Your task to perform on an android device: Go to Wikipedia Image 0: 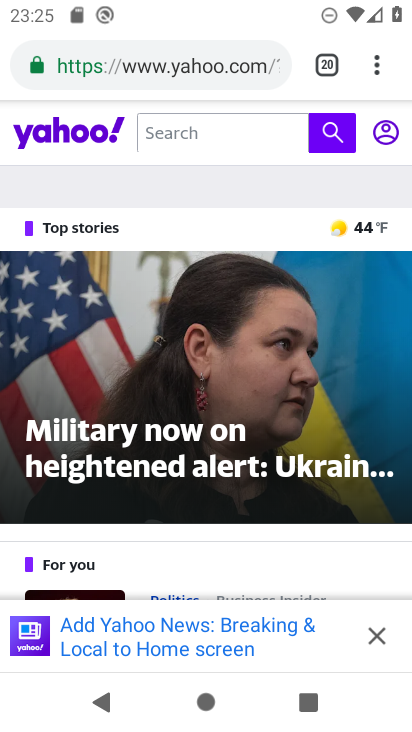
Step 0: press home button
Your task to perform on an android device: Go to Wikipedia Image 1: 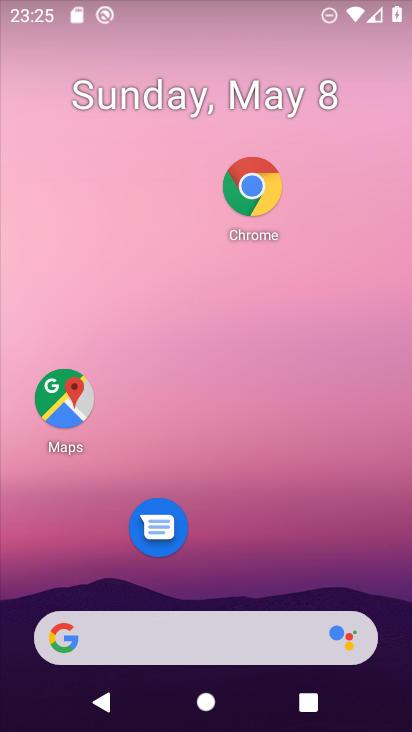
Step 1: click (268, 280)
Your task to perform on an android device: Go to Wikipedia Image 2: 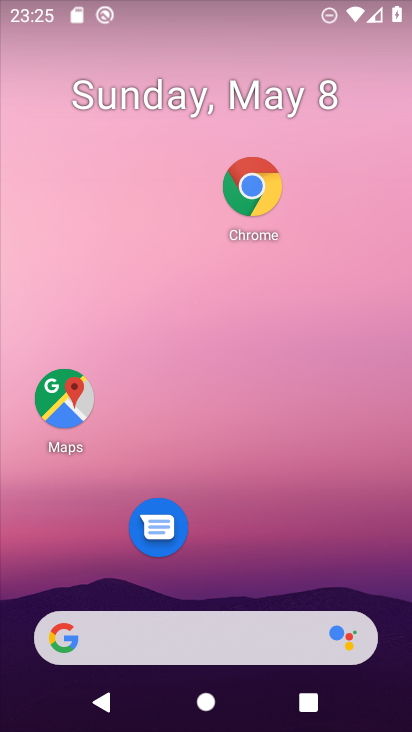
Step 2: drag from (345, 465) to (363, 282)
Your task to perform on an android device: Go to Wikipedia Image 3: 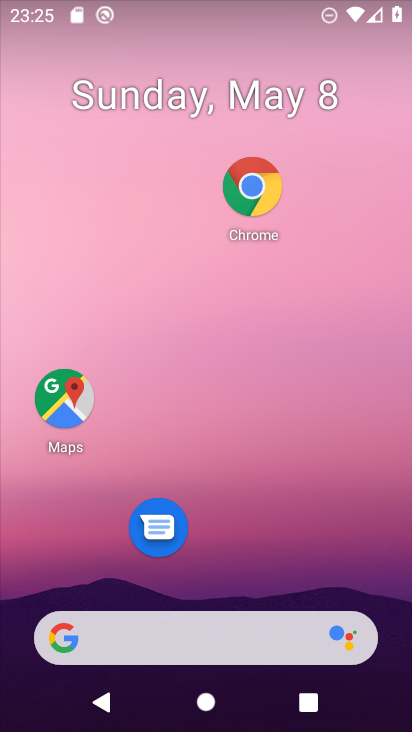
Step 3: drag from (239, 553) to (290, 318)
Your task to perform on an android device: Go to Wikipedia Image 4: 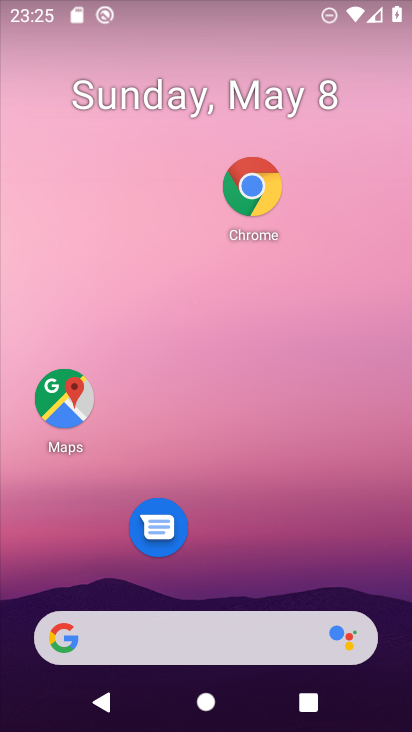
Step 4: drag from (265, 467) to (307, 146)
Your task to perform on an android device: Go to Wikipedia Image 5: 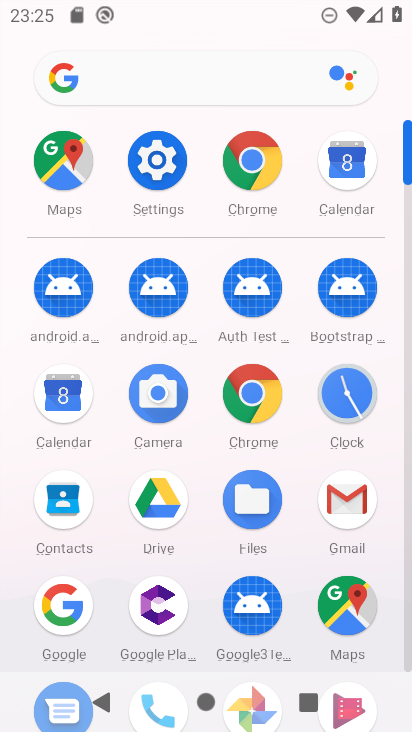
Step 5: click (249, 398)
Your task to perform on an android device: Go to Wikipedia Image 6: 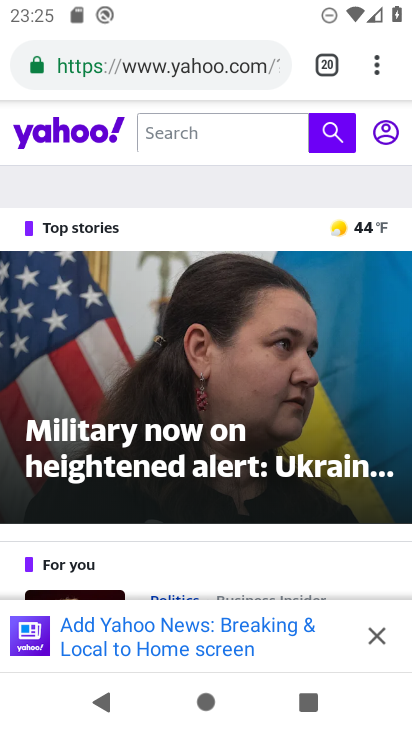
Step 6: click (366, 60)
Your task to perform on an android device: Go to Wikipedia Image 7: 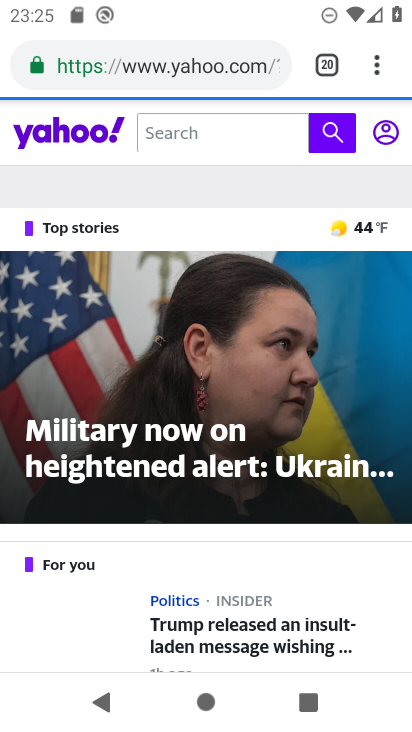
Step 7: click (355, 67)
Your task to perform on an android device: Go to Wikipedia Image 8: 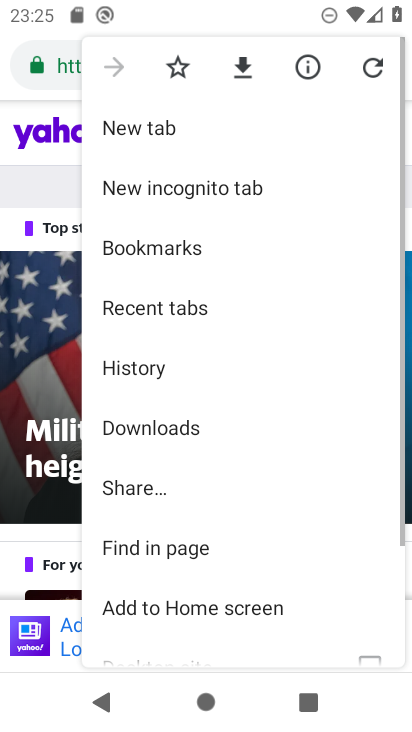
Step 8: click (155, 124)
Your task to perform on an android device: Go to Wikipedia Image 9: 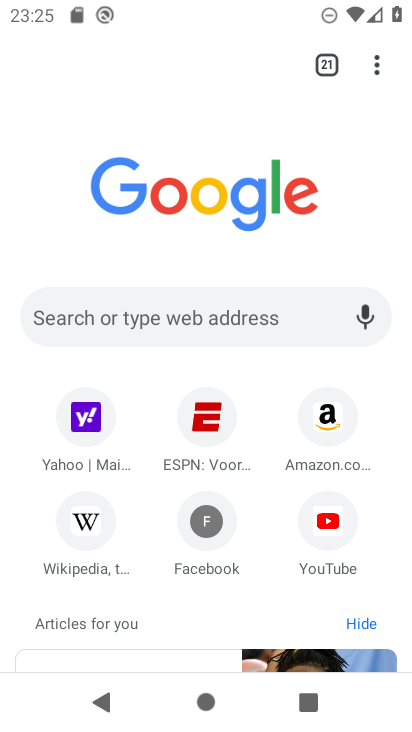
Step 9: click (75, 519)
Your task to perform on an android device: Go to Wikipedia Image 10: 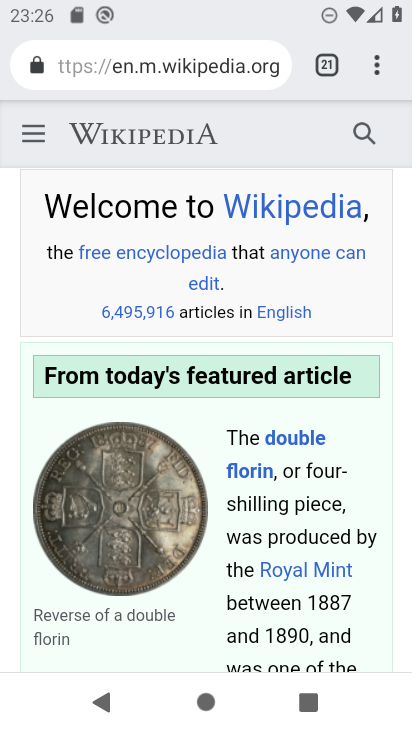
Step 10: task complete